Your task to perform on an android device: Open the map Image 0: 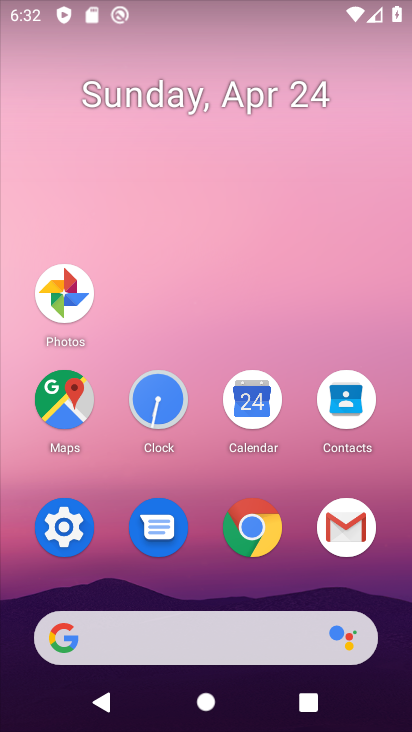
Step 0: click (57, 403)
Your task to perform on an android device: Open the map Image 1: 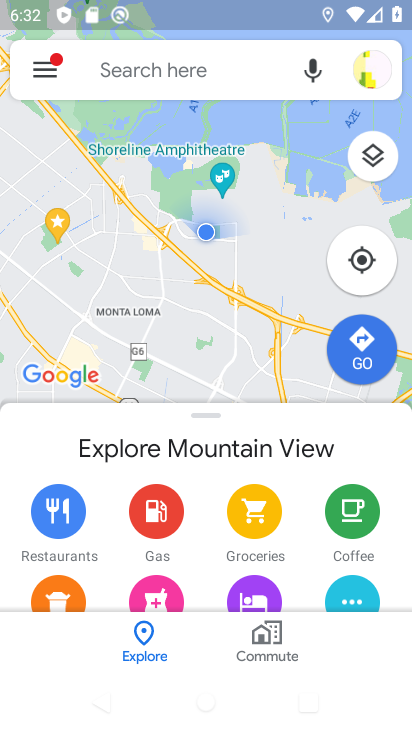
Step 1: task complete